Your task to perform on an android device: turn on wifi Image 0: 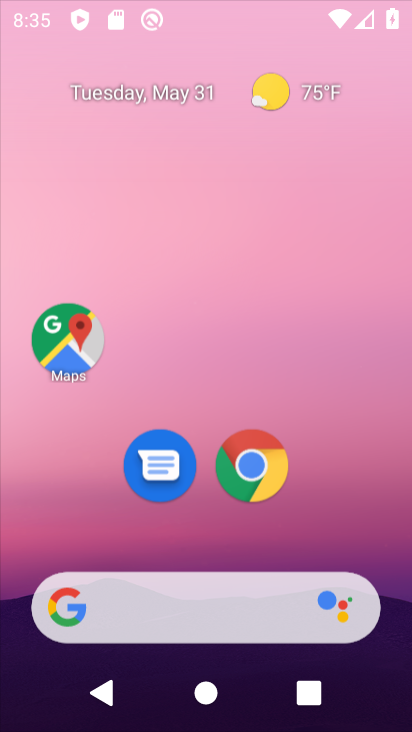
Step 0: click (136, 224)
Your task to perform on an android device: turn on wifi Image 1: 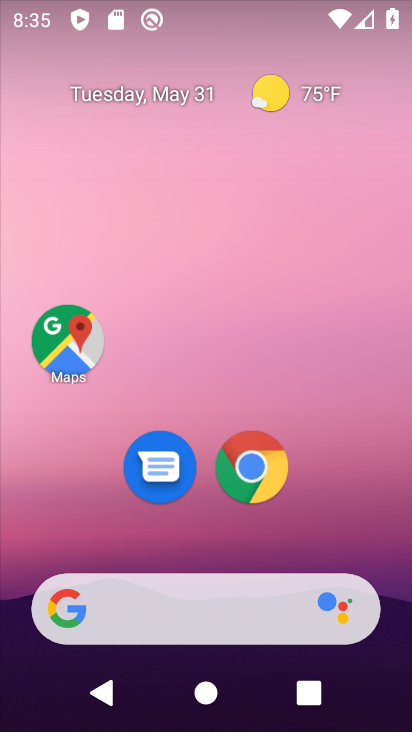
Step 1: drag from (202, 541) to (203, 70)
Your task to perform on an android device: turn on wifi Image 2: 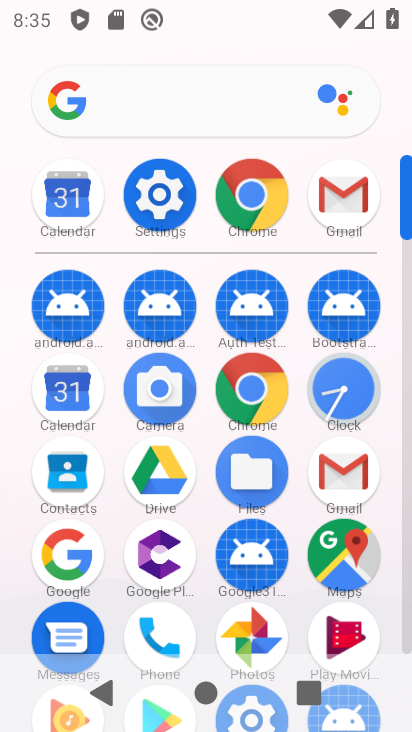
Step 2: click (164, 184)
Your task to perform on an android device: turn on wifi Image 3: 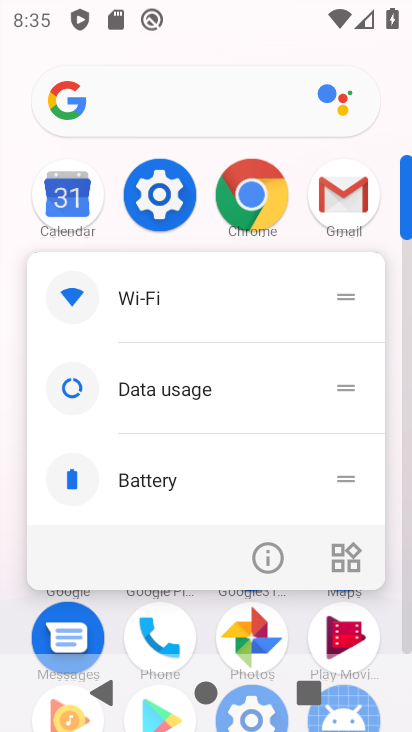
Step 3: click (172, 312)
Your task to perform on an android device: turn on wifi Image 4: 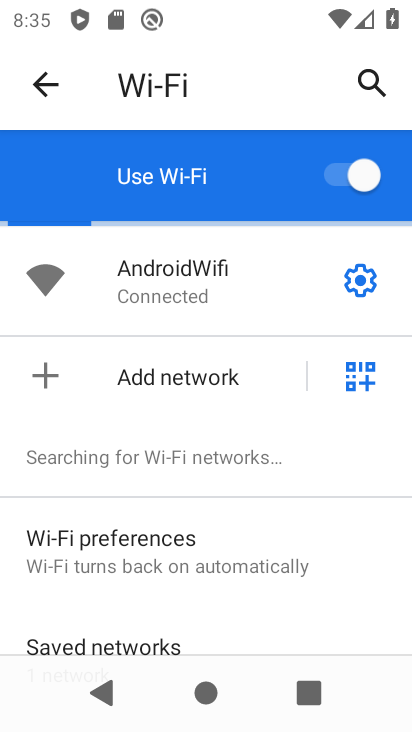
Step 4: task complete